Your task to perform on an android device: change alarm snooze length Image 0: 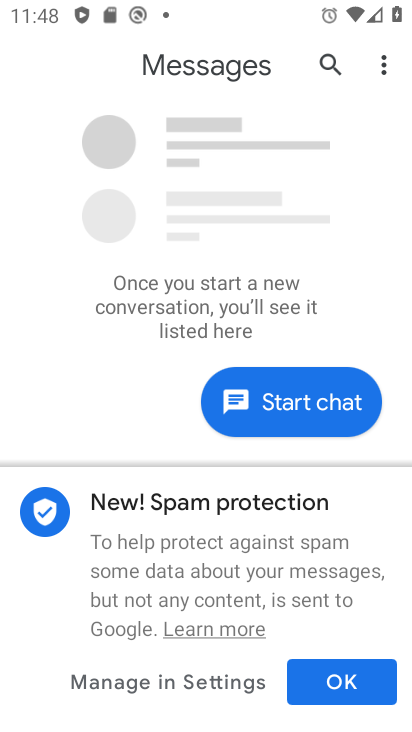
Step 0: press home button
Your task to perform on an android device: change alarm snooze length Image 1: 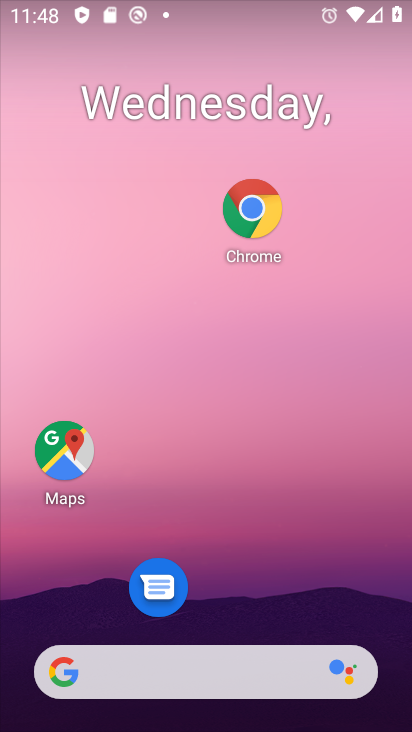
Step 1: click (260, 227)
Your task to perform on an android device: change alarm snooze length Image 2: 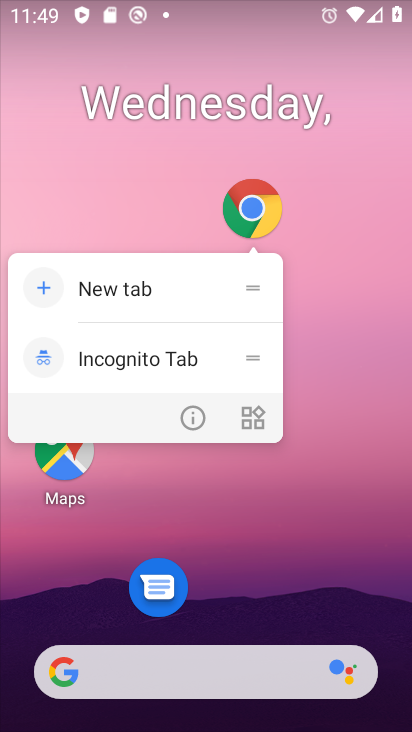
Step 2: click (253, 204)
Your task to perform on an android device: change alarm snooze length Image 3: 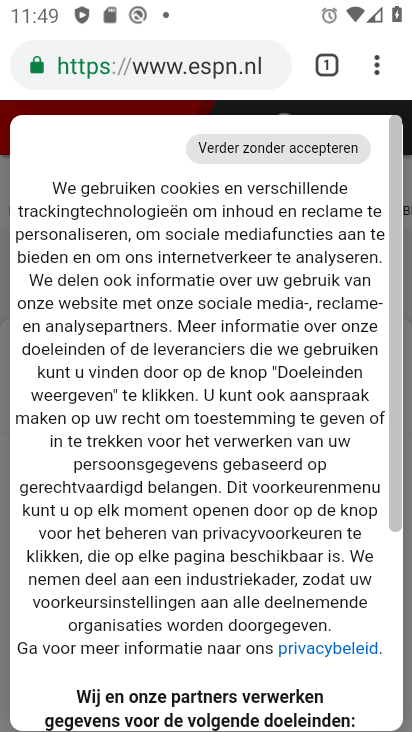
Step 3: click (379, 75)
Your task to perform on an android device: change alarm snooze length Image 4: 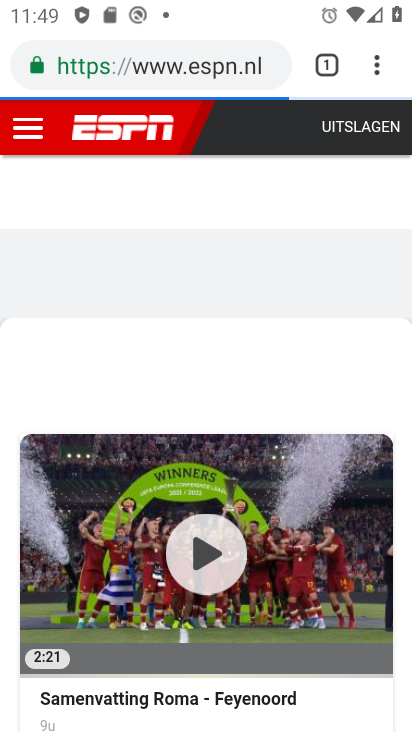
Step 4: click (377, 67)
Your task to perform on an android device: change alarm snooze length Image 5: 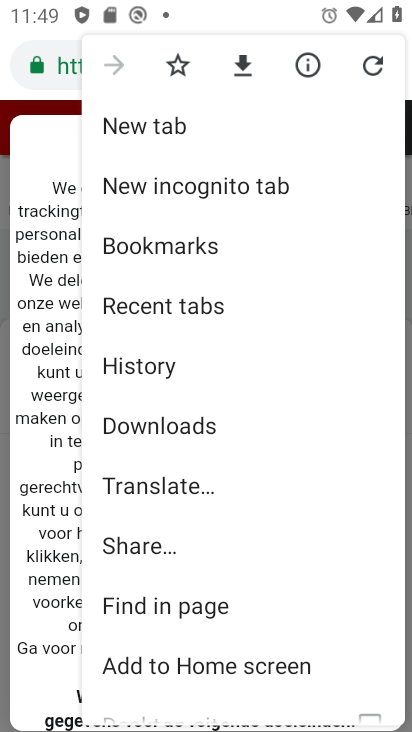
Step 5: drag from (164, 567) to (192, 239)
Your task to perform on an android device: change alarm snooze length Image 6: 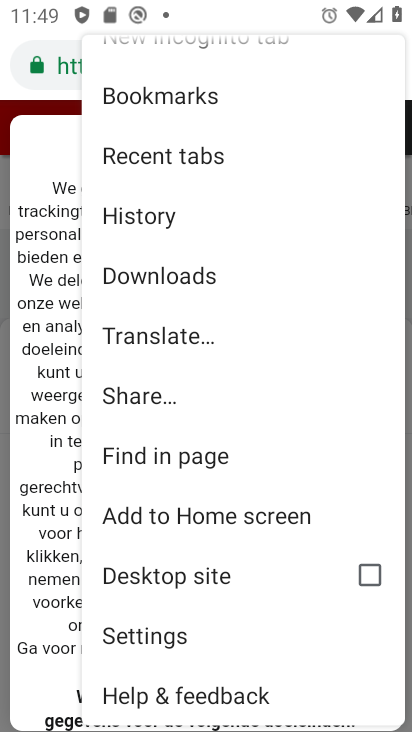
Step 6: drag from (173, 210) to (183, 670)
Your task to perform on an android device: change alarm snooze length Image 7: 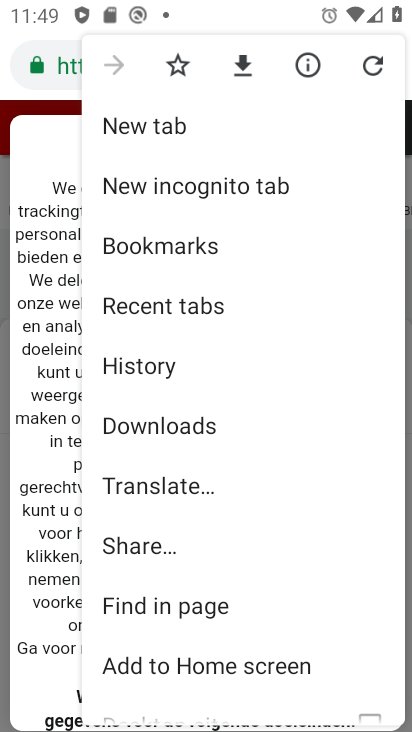
Step 7: press home button
Your task to perform on an android device: change alarm snooze length Image 8: 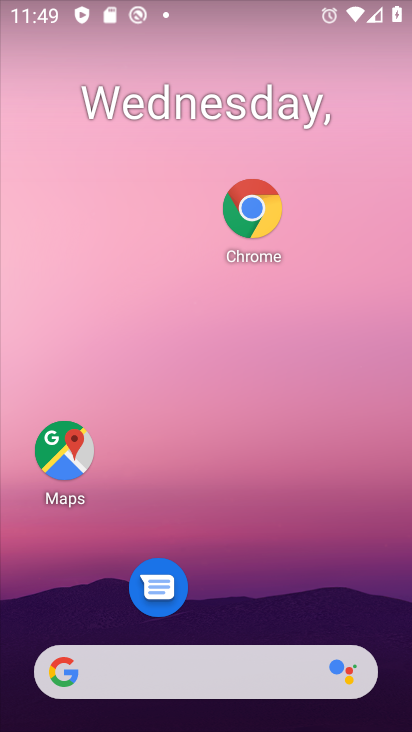
Step 8: drag from (235, 629) to (224, 85)
Your task to perform on an android device: change alarm snooze length Image 9: 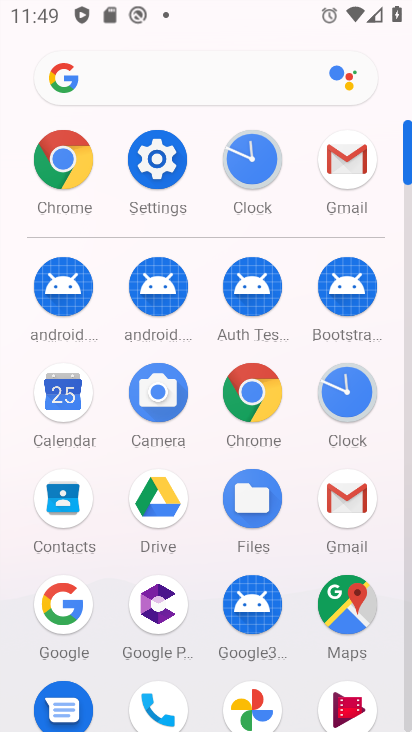
Step 9: click (334, 424)
Your task to perform on an android device: change alarm snooze length Image 10: 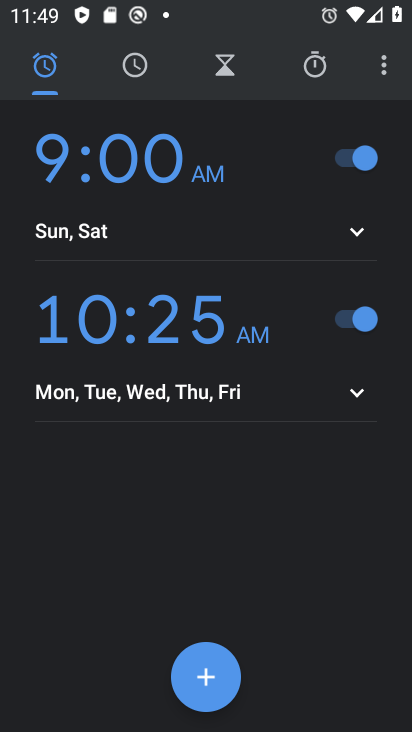
Step 10: click (383, 78)
Your task to perform on an android device: change alarm snooze length Image 11: 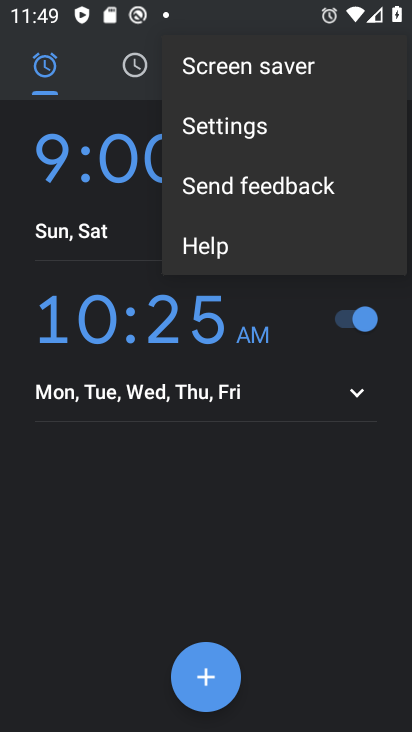
Step 11: click (270, 126)
Your task to perform on an android device: change alarm snooze length Image 12: 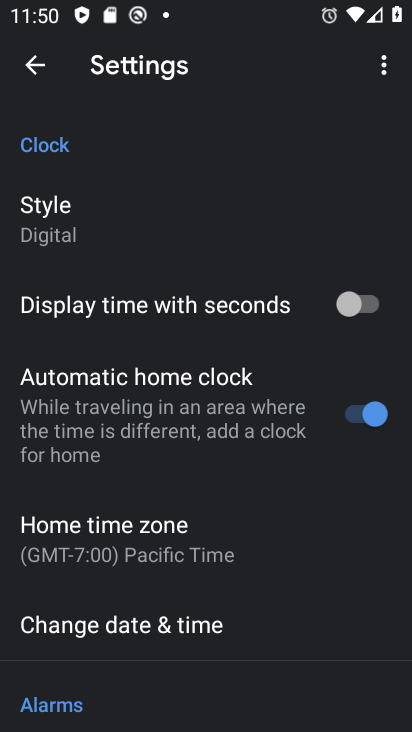
Step 12: drag from (260, 634) to (257, 34)
Your task to perform on an android device: change alarm snooze length Image 13: 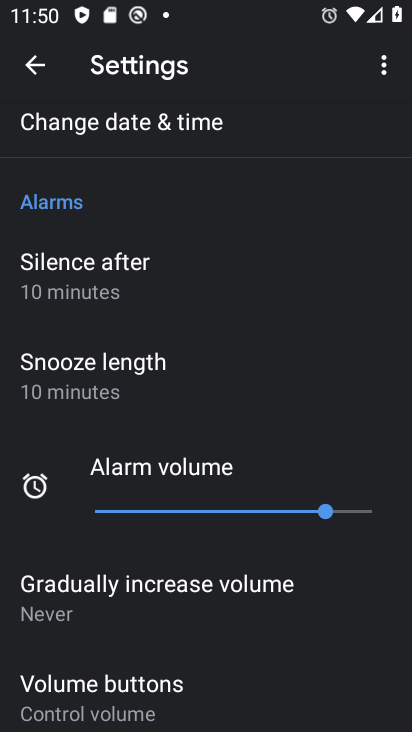
Step 13: drag from (199, 195) to (197, 388)
Your task to perform on an android device: change alarm snooze length Image 14: 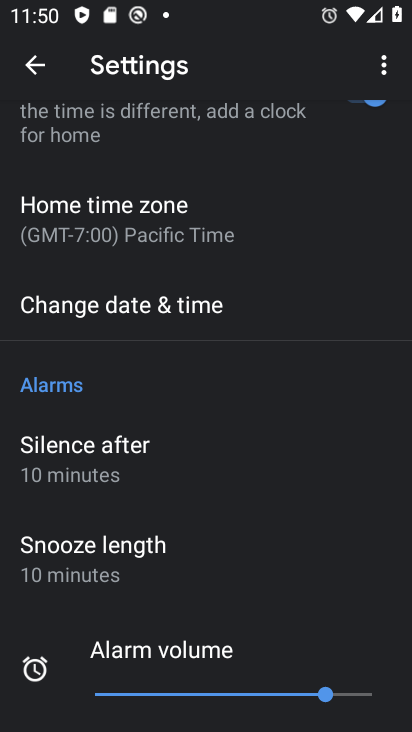
Step 14: drag from (281, 259) to (263, 599)
Your task to perform on an android device: change alarm snooze length Image 15: 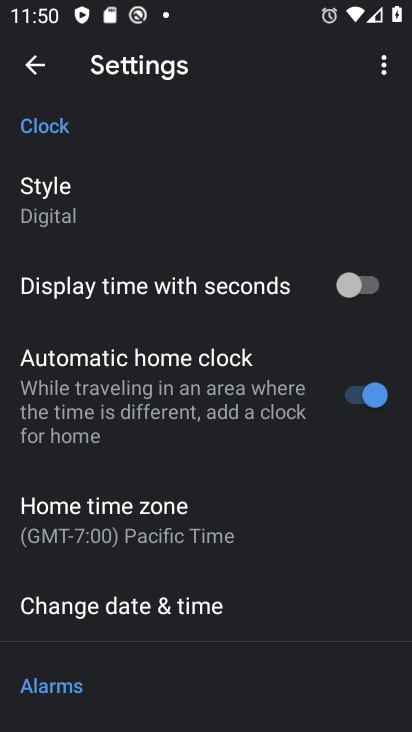
Step 15: drag from (235, 216) to (280, 725)
Your task to perform on an android device: change alarm snooze length Image 16: 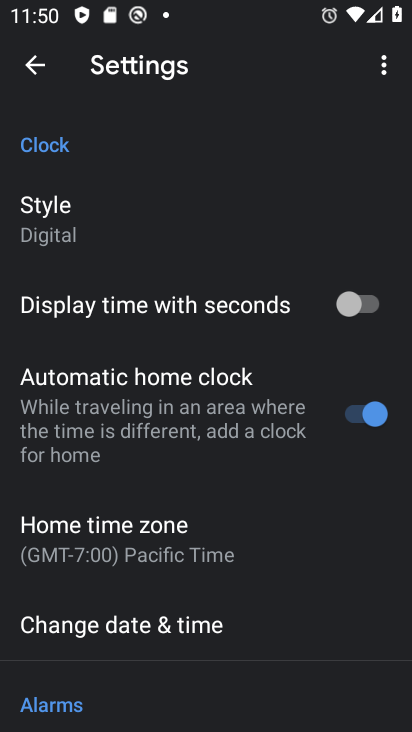
Step 16: drag from (256, 603) to (252, 331)
Your task to perform on an android device: change alarm snooze length Image 17: 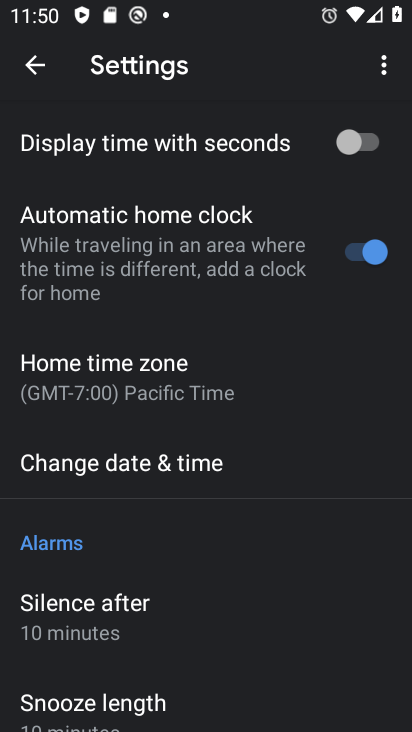
Step 17: click (147, 718)
Your task to perform on an android device: change alarm snooze length Image 18: 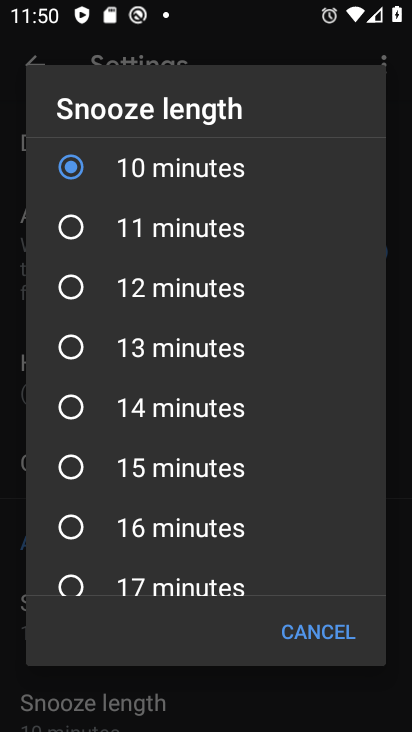
Step 18: click (80, 222)
Your task to perform on an android device: change alarm snooze length Image 19: 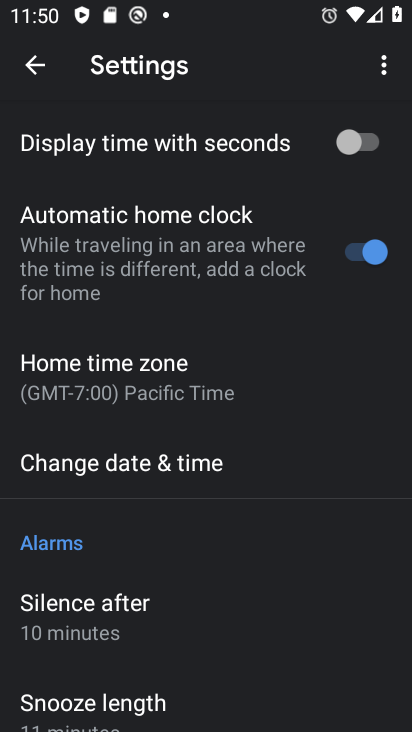
Step 19: task complete